Your task to perform on an android device: Open the phone app and click the voicemail tab. Image 0: 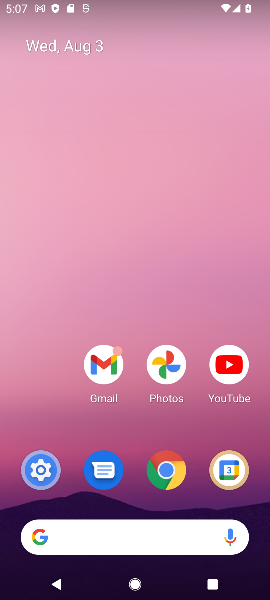
Step 0: drag from (53, 424) to (54, 26)
Your task to perform on an android device: Open the phone app and click the voicemail tab. Image 1: 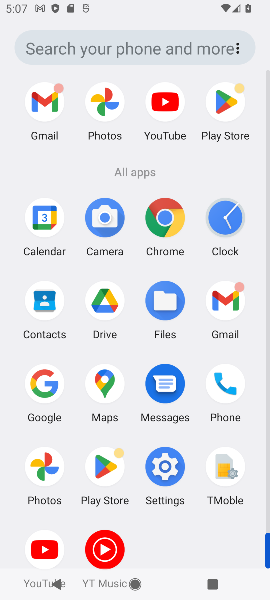
Step 1: click (217, 376)
Your task to perform on an android device: Open the phone app and click the voicemail tab. Image 2: 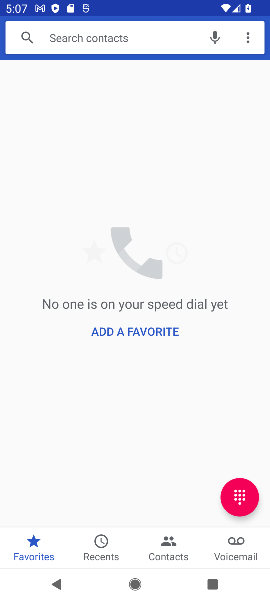
Step 2: click (227, 545)
Your task to perform on an android device: Open the phone app and click the voicemail tab. Image 3: 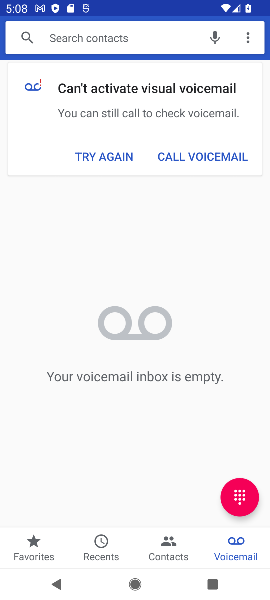
Step 3: task complete